Your task to perform on an android device: open sync settings in chrome Image 0: 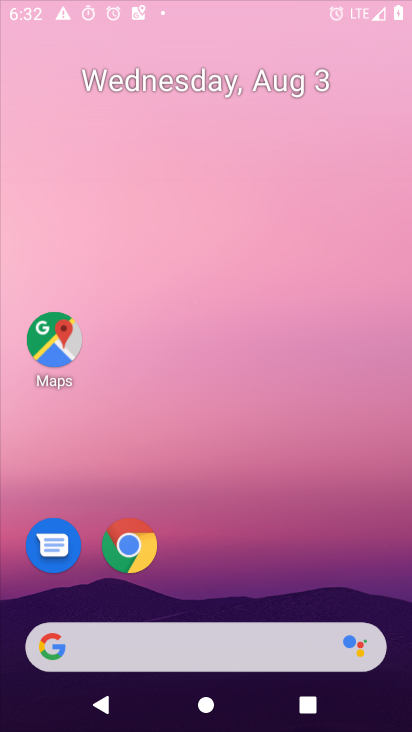
Step 0: press home button
Your task to perform on an android device: open sync settings in chrome Image 1: 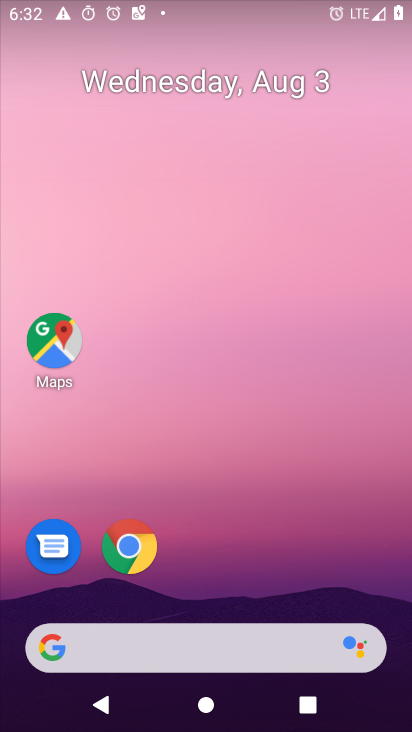
Step 1: click (129, 542)
Your task to perform on an android device: open sync settings in chrome Image 2: 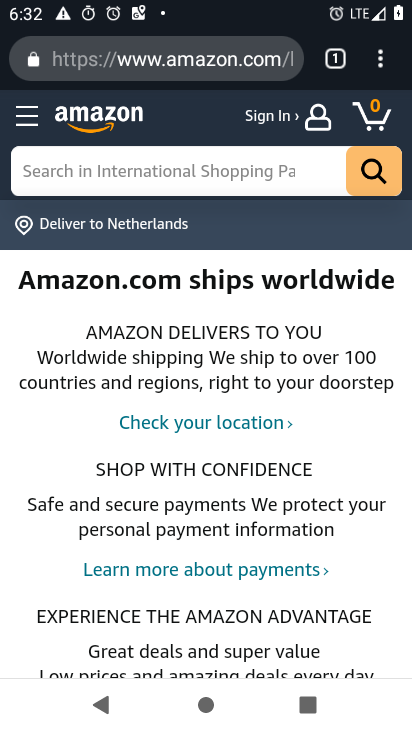
Step 2: drag from (384, 62) to (263, 581)
Your task to perform on an android device: open sync settings in chrome Image 3: 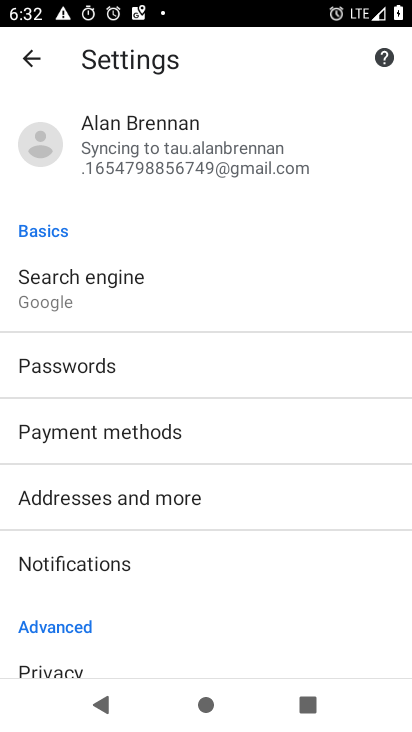
Step 3: click (174, 152)
Your task to perform on an android device: open sync settings in chrome Image 4: 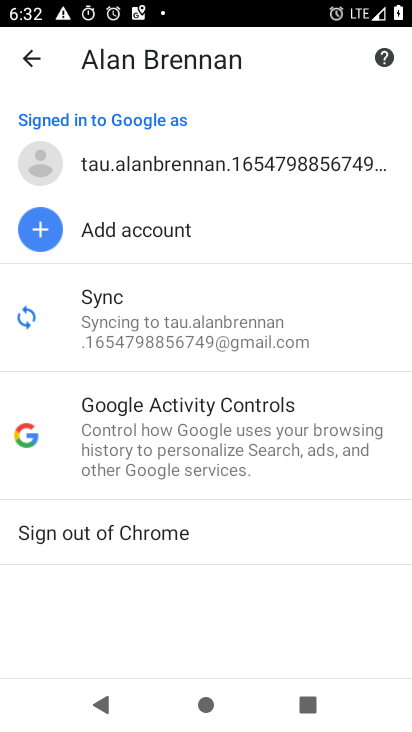
Step 4: click (144, 323)
Your task to perform on an android device: open sync settings in chrome Image 5: 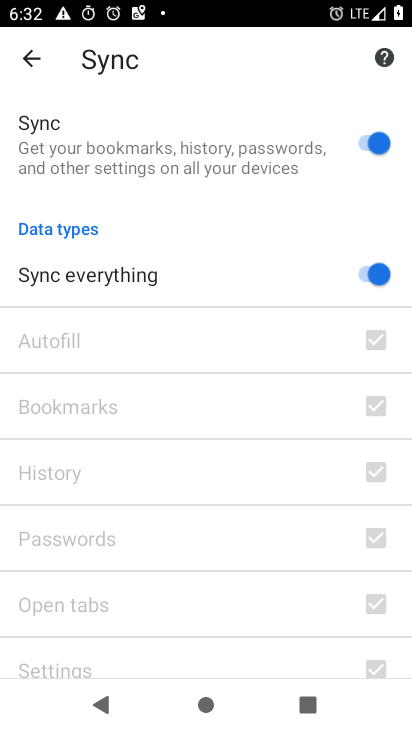
Step 5: task complete